Your task to perform on an android device: toggle airplane mode Image 0: 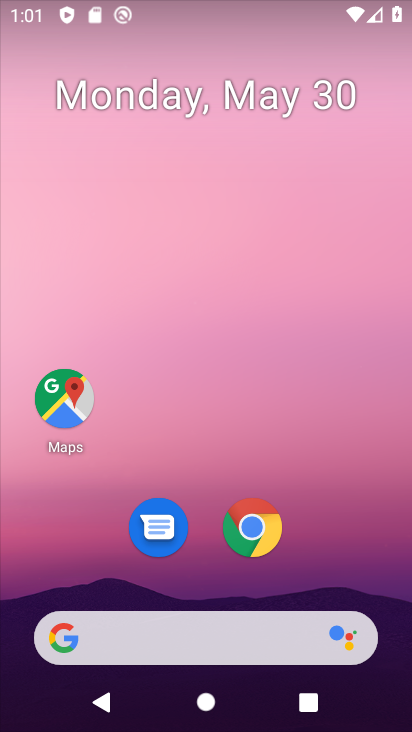
Step 0: drag from (198, 586) to (272, 3)
Your task to perform on an android device: toggle airplane mode Image 1: 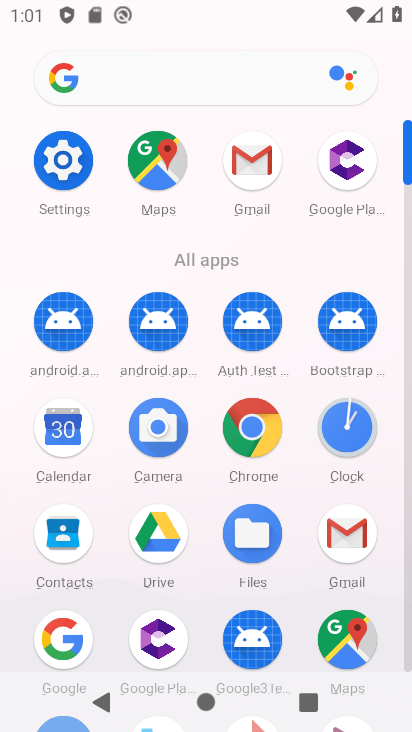
Step 1: click (77, 168)
Your task to perform on an android device: toggle airplane mode Image 2: 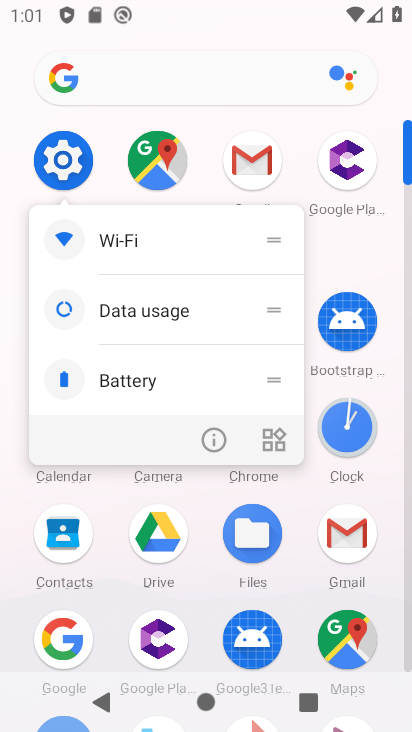
Step 2: click (70, 169)
Your task to perform on an android device: toggle airplane mode Image 3: 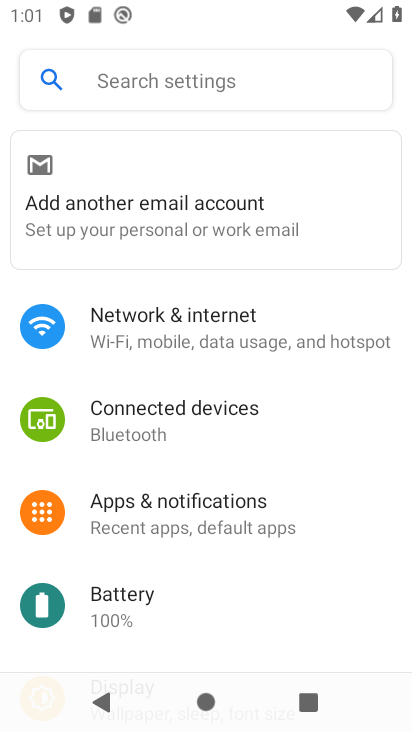
Step 3: click (221, 338)
Your task to perform on an android device: toggle airplane mode Image 4: 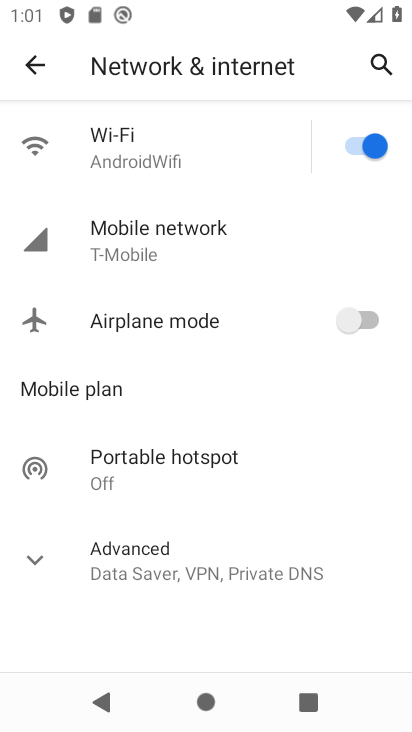
Step 4: click (371, 310)
Your task to perform on an android device: toggle airplane mode Image 5: 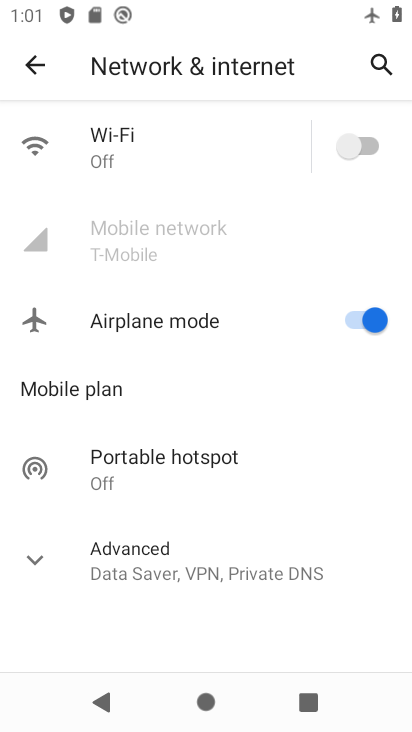
Step 5: task complete